Your task to perform on an android device: create a new album in the google photos Image 0: 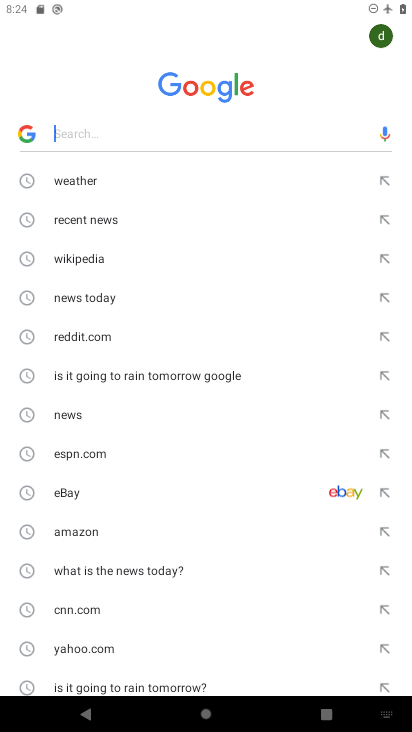
Step 0: press home button
Your task to perform on an android device: create a new album in the google photos Image 1: 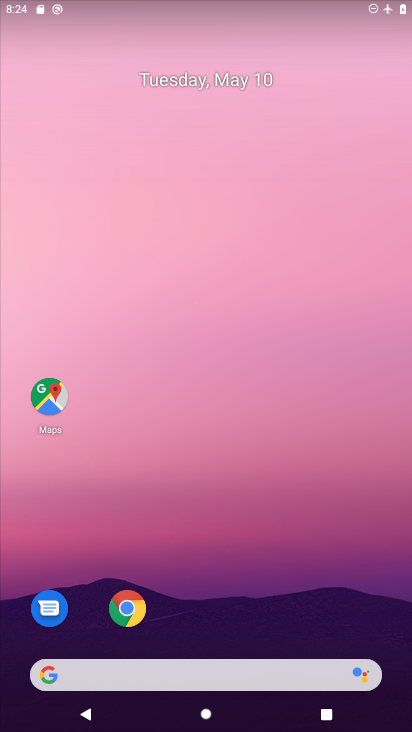
Step 1: drag from (264, 616) to (255, 271)
Your task to perform on an android device: create a new album in the google photos Image 2: 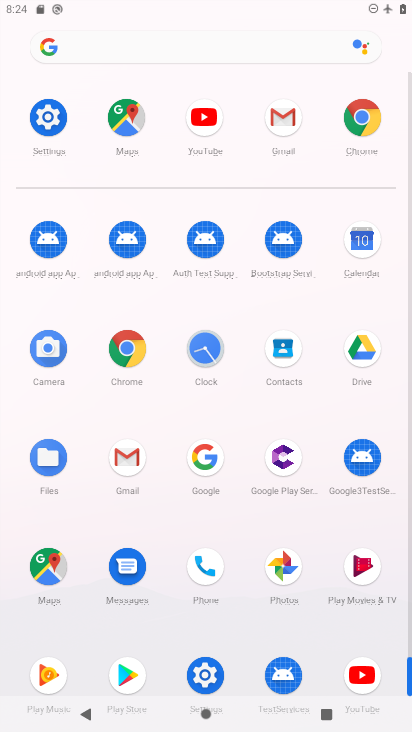
Step 2: click (280, 565)
Your task to perform on an android device: create a new album in the google photos Image 3: 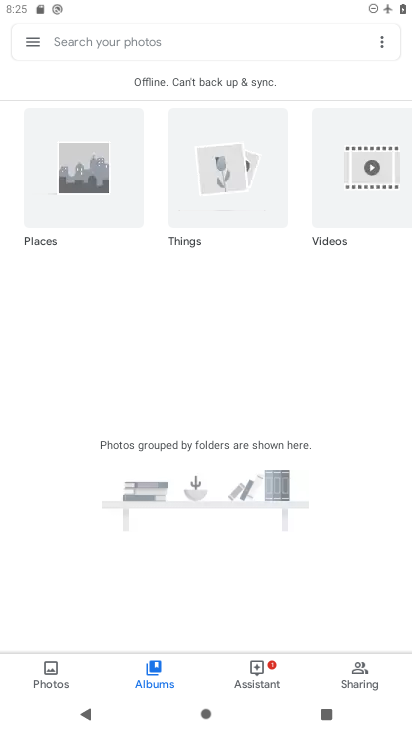
Step 3: click (163, 676)
Your task to perform on an android device: create a new album in the google photos Image 4: 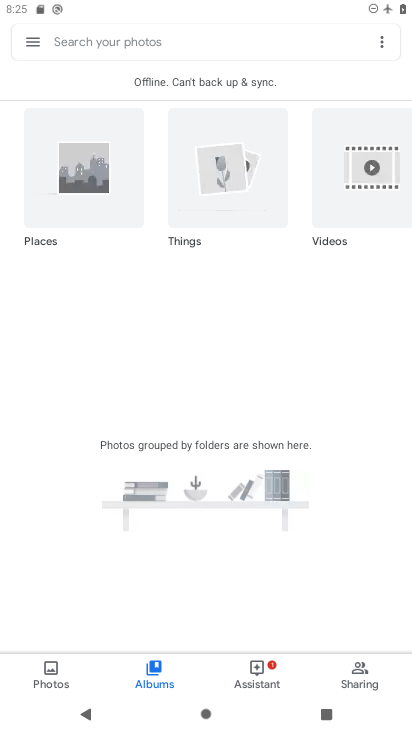
Step 4: task complete